Your task to perform on an android device: Open Youtube and go to "Your channel" Image 0: 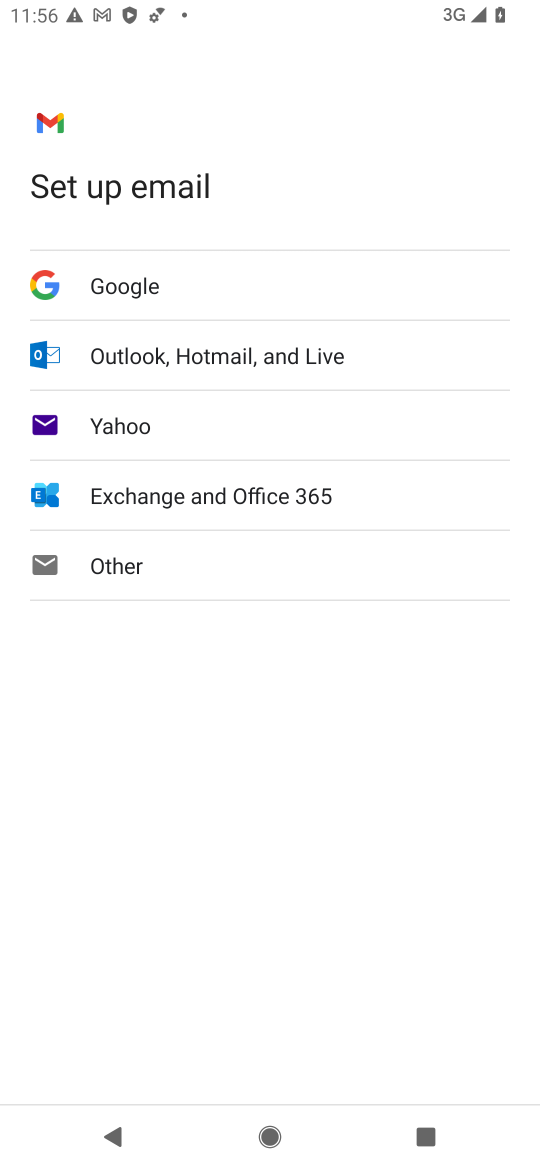
Step 0: press home button
Your task to perform on an android device: Open Youtube and go to "Your channel" Image 1: 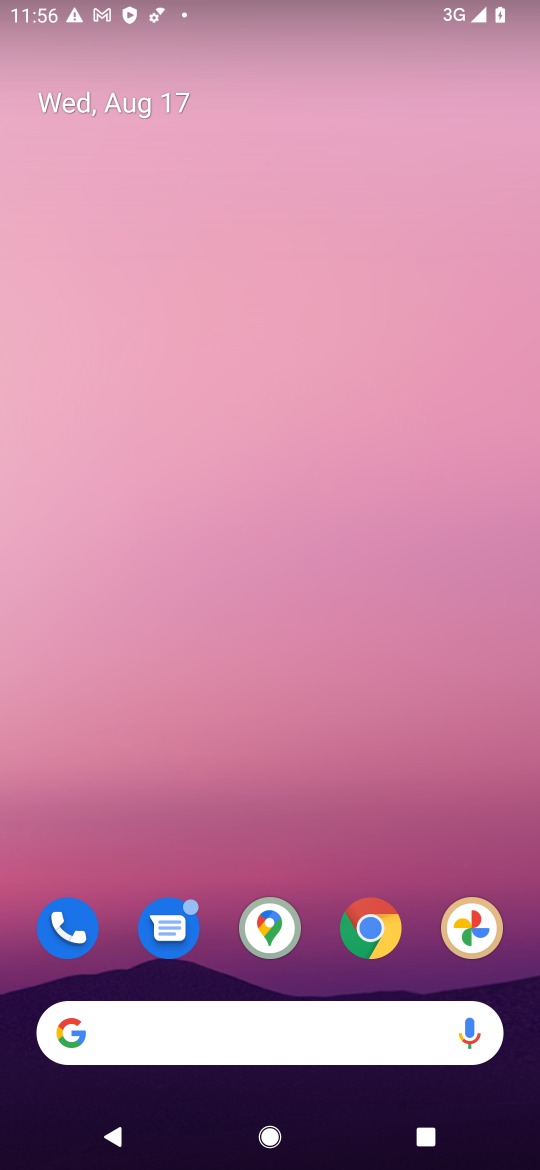
Step 1: drag from (279, 855) to (239, 182)
Your task to perform on an android device: Open Youtube and go to "Your channel" Image 2: 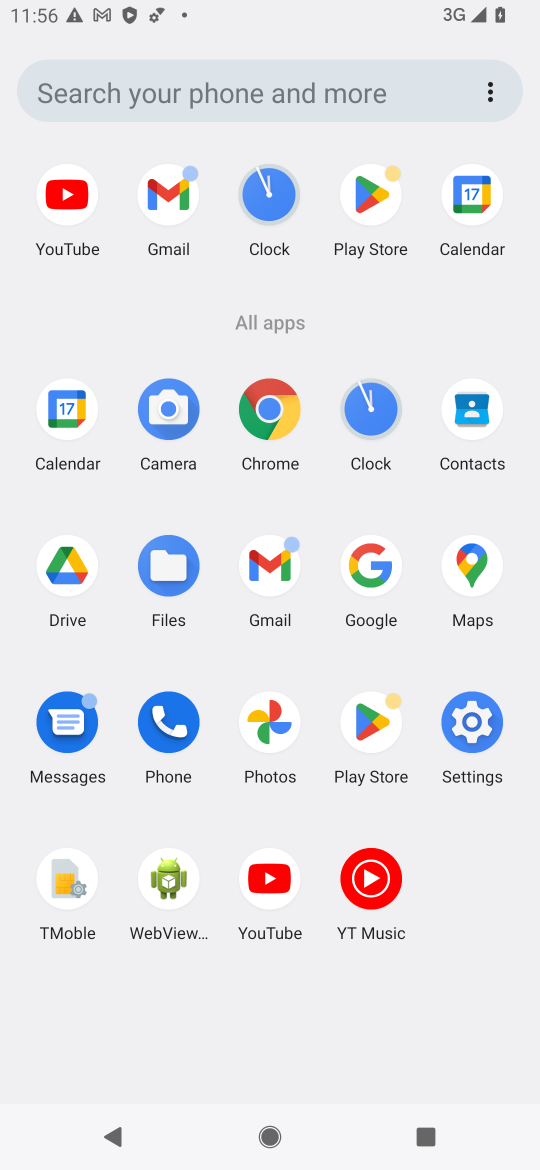
Step 2: click (262, 899)
Your task to perform on an android device: Open Youtube and go to "Your channel" Image 3: 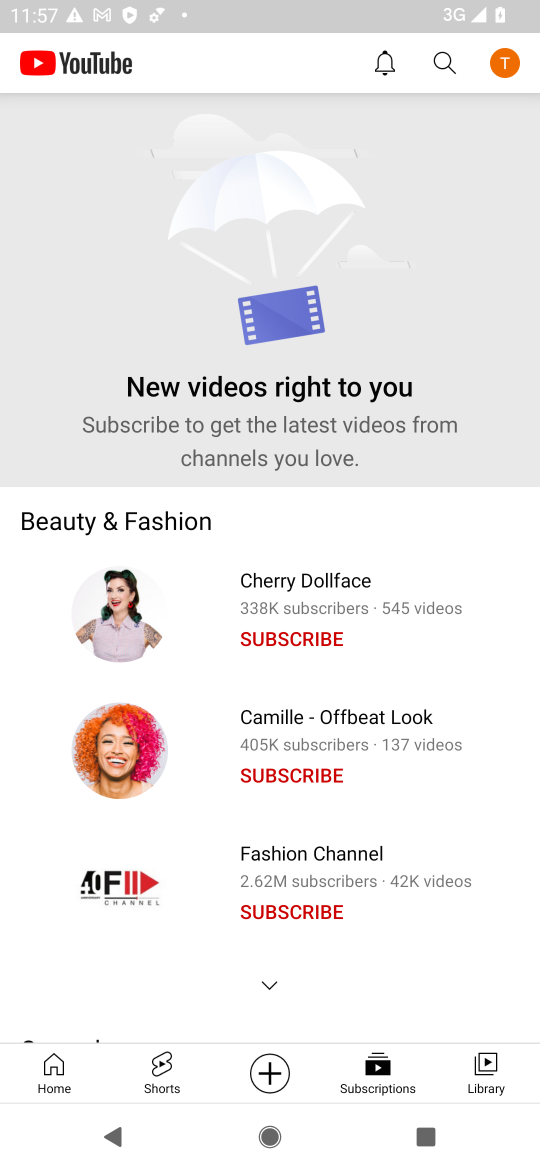
Step 3: click (512, 62)
Your task to perform on an android device: Open Youtube and go to "Your channel" Image 4: 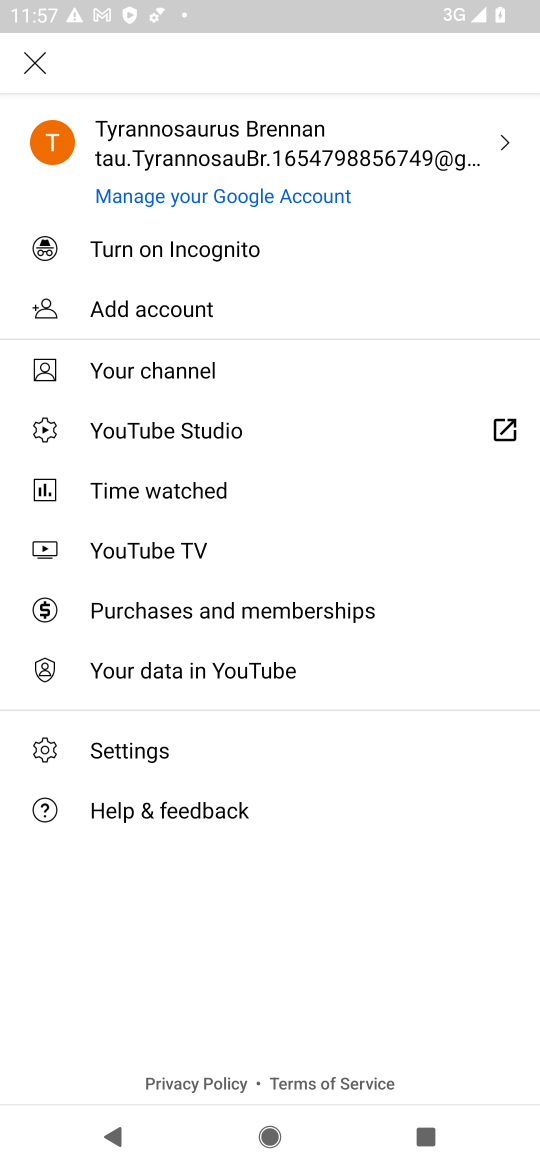
Step 4: click (137, 363)
Your task to perform on an android device: Open Youtube and go to "Your channel" Image 5: 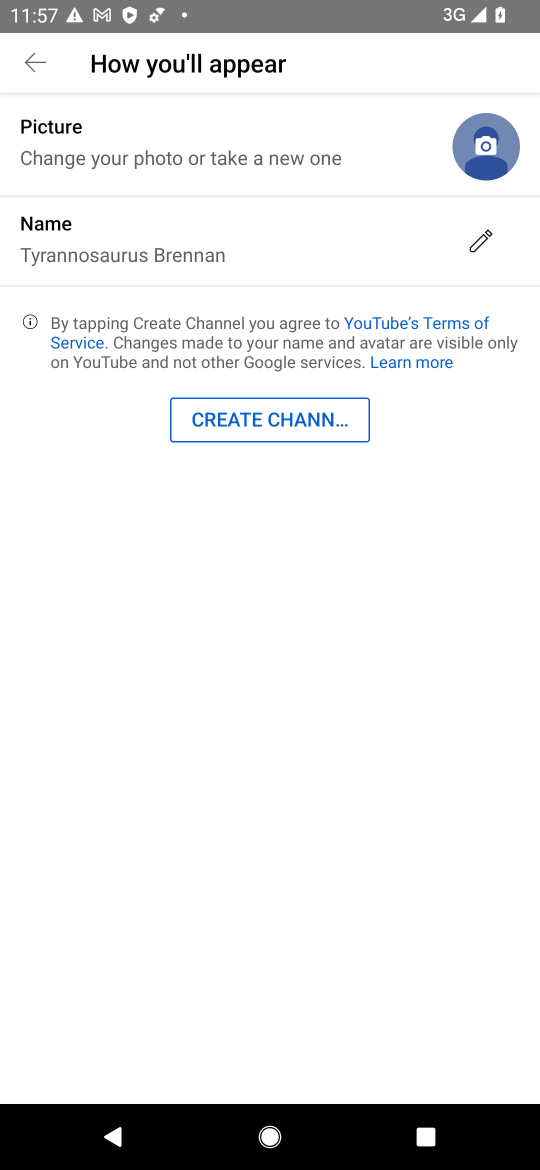
Step 5: task complete